Your task to perform on an android device: Go to ESPN.com Image 0: 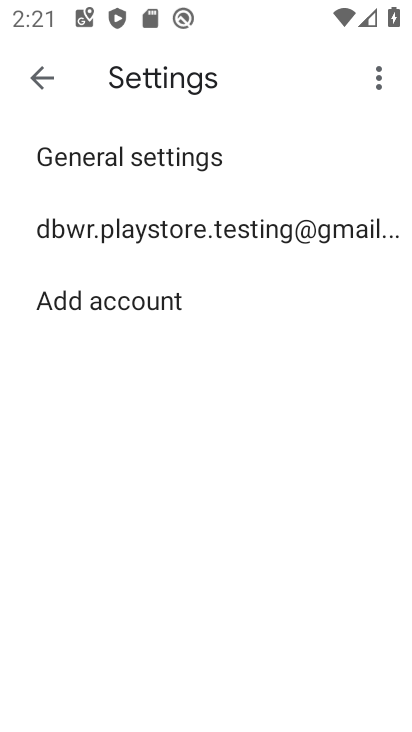
Step 0: press home button
Your task to perform on an android device: Go to ESPN.com Image 1: 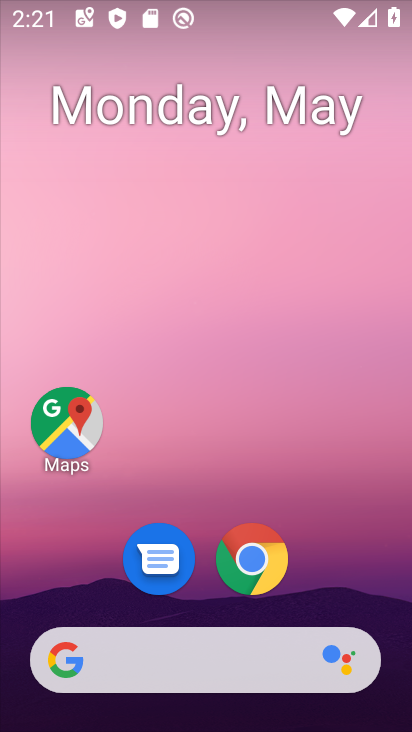
Step 1: click (253, 680)
Your task to perform on an android device: Go to ESPN.com Image 2: 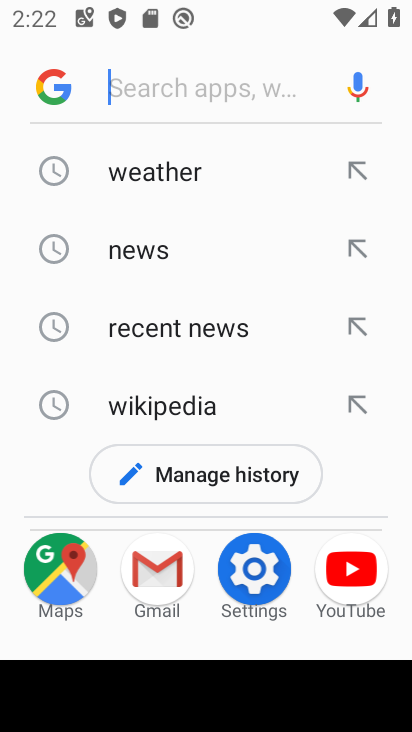
Step 2: type "espn.com"
Your task to perform on an android device: Go to ESPN.com Image 3: 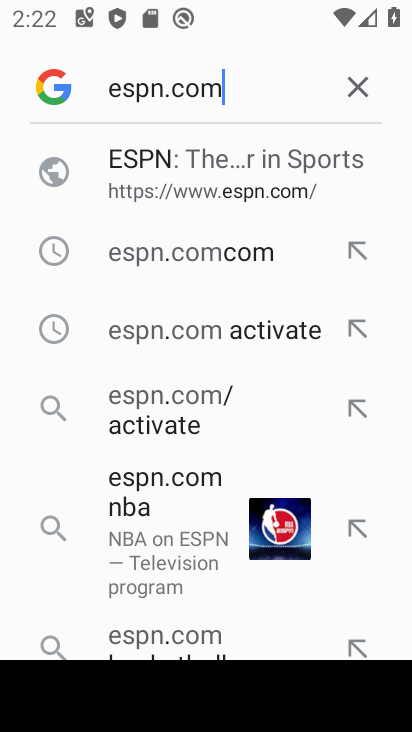
Step 3: click (330, 177)
Your task to perform on an android device: Go to ESPN.com Image 4: 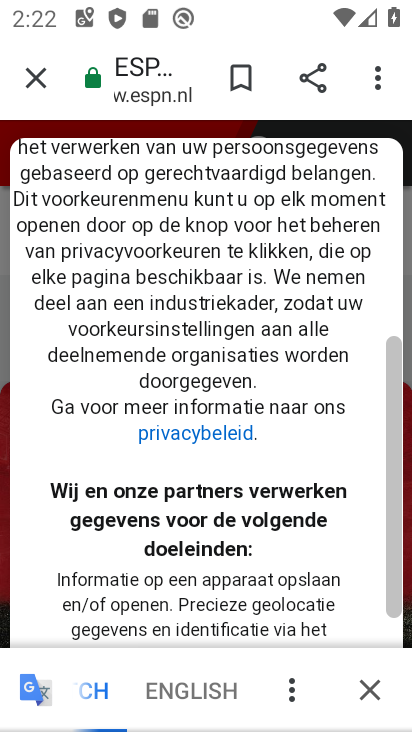
Step 4: task complete